Your task to perform on an android device: stop showing notifications on the lock screen Image 0: 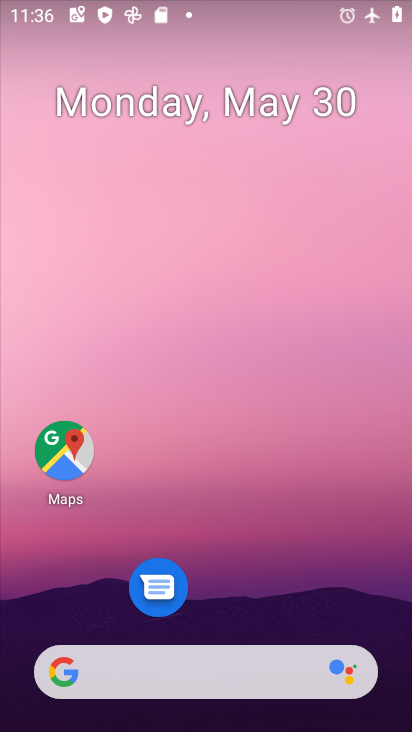
Step 0: drag from (229, 615) to (223, 10)
Your task to perform on an android device: stop showing notifications on the lock screen Image 1: 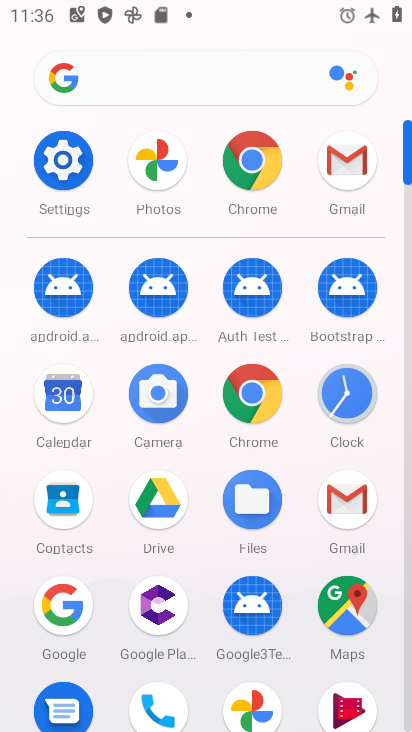
Step 1: click (61, 163)
Your task to perform on an android device: stop showing notifications on the lock screen Image 2: 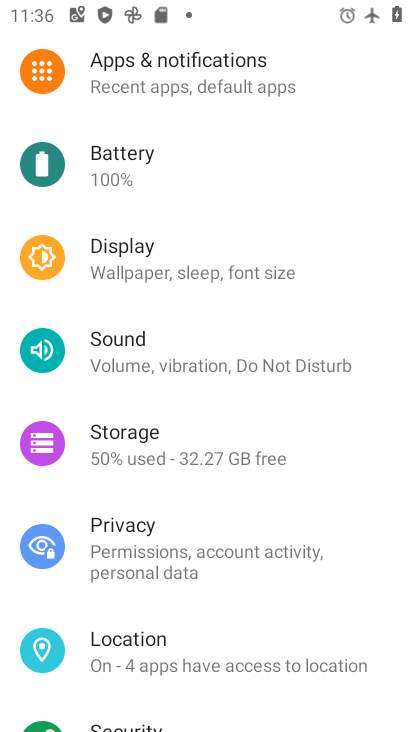
Step 2: click (171, 84)
Your task to perform on an android device: stop showing notifications on the lock screen Image 3: 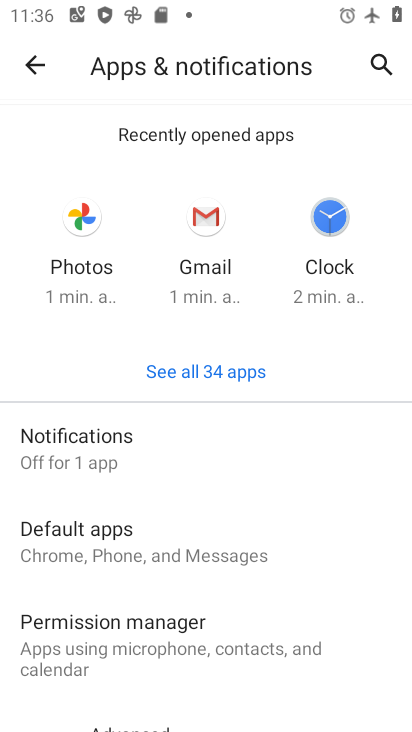
Step 3: press home button
Your task to perform on an android device: stop showing notifications on the lock screen Image 4: 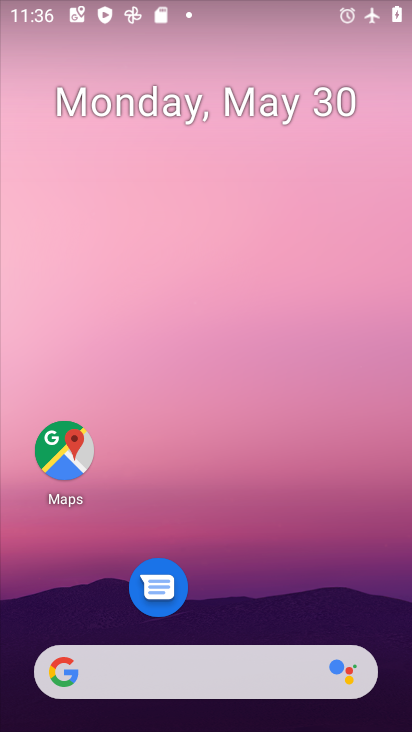
Step 4: drag from (223, 640) to (362, 9)
Your task to perform on an android device: stop showing notifications on the lock screen Image 5: 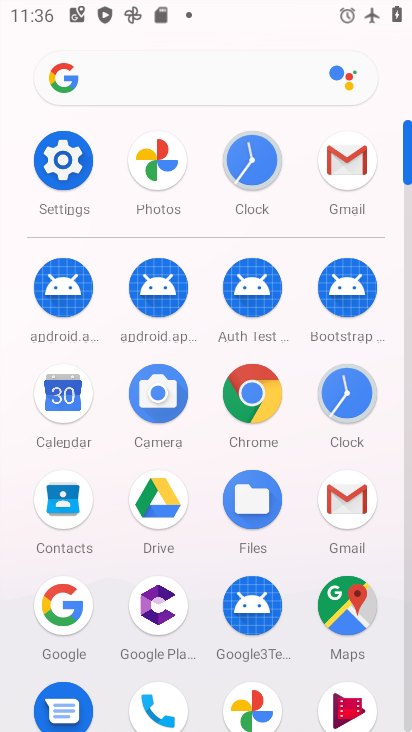
Step 5: click (75, 159)
Your task to perform on an android device: stop showing notifications on the lock screen Image 6: 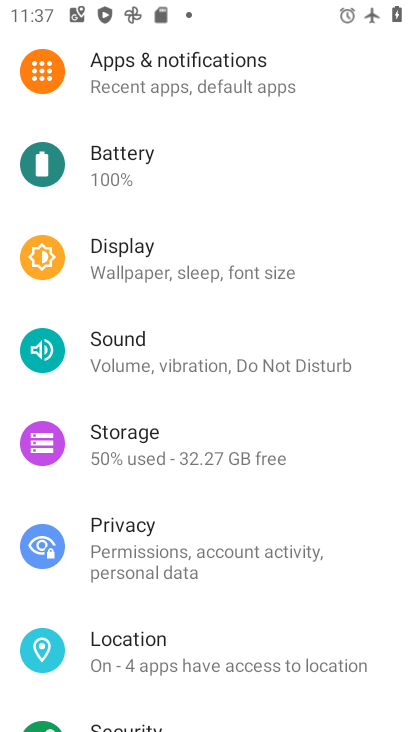
Step 6: click (189, 72)
Your task to perform on an android device: stop showing notifications on the lock screen Image 7: 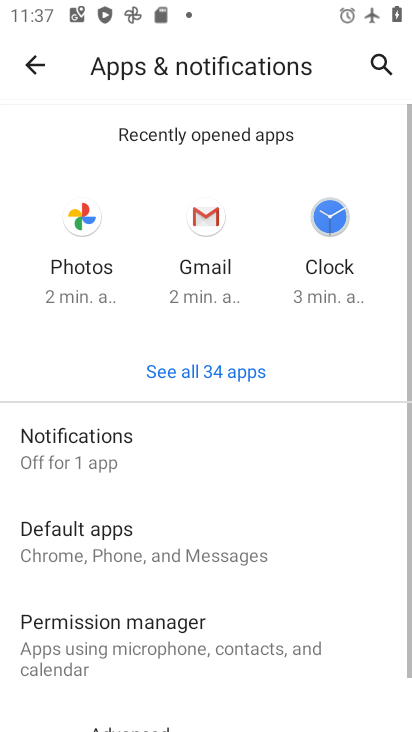
Step 7: click (132, 439)
Your task to perform on an android device: stop showing notifications on the lock screen Image 8: 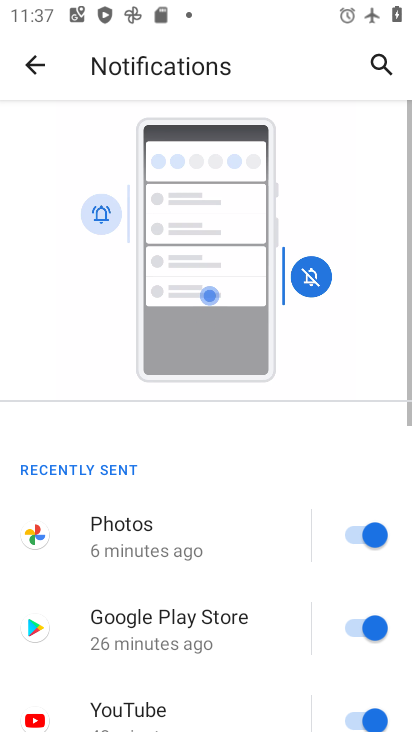
Step 8: drag from (194, 608) to (196, 73)
Your task to perform on an android device: stop showing notifications on the lock screen Image 9: 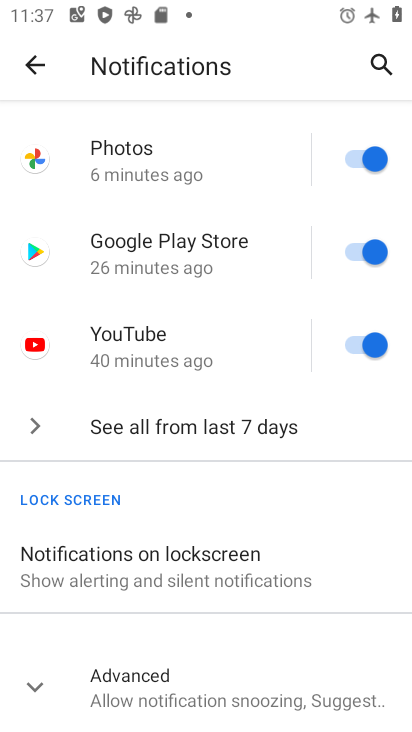
Step 9: click (223, 567)
Your task to perform on an android device: stop showing notifications on the lock screen Image 10: 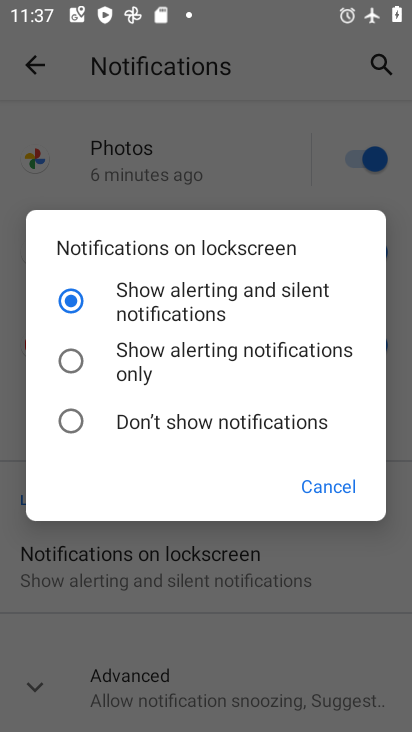
Step 10: click (164, 428)
Your task to perform on an android device: stop showing notifications on the lock screen Image 11: 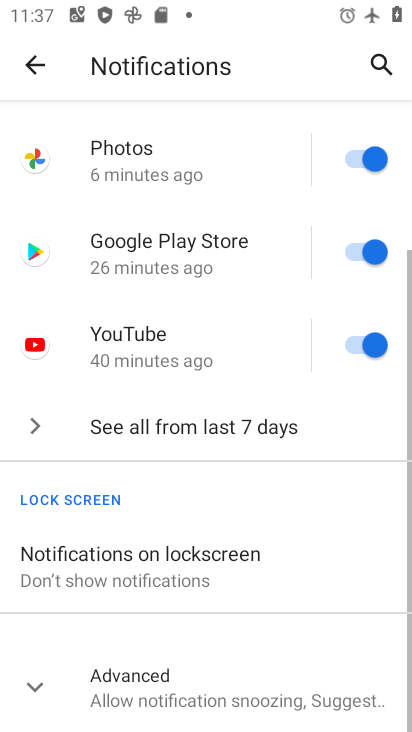
Step 11: task complete